Your task to perform on an android device: Open calendar and show me the first week of next month Image 0: 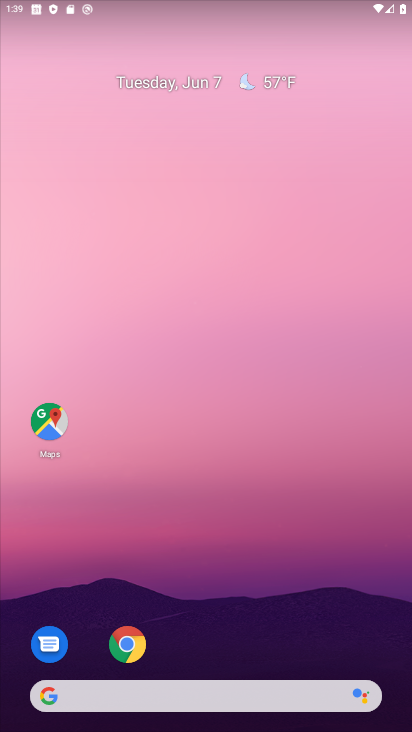
Step 0: drag from (183, 419) to (162, 200)
Your task to perform on an android device: Open calendar and show me the first week of next month Image 1: 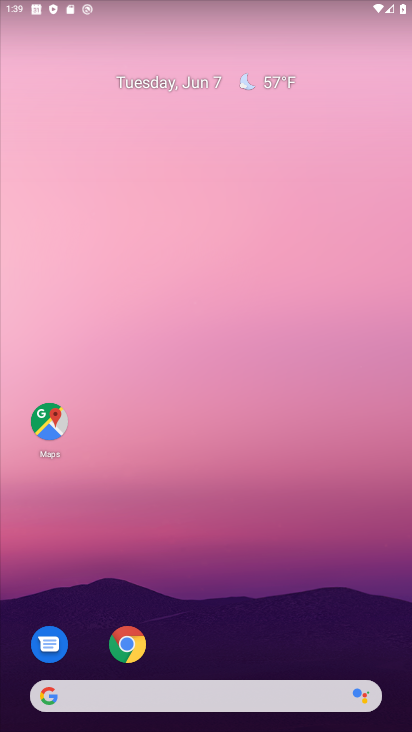
Step 1: drag from (182, 486) to (159, 268)
Your task to perform on an android device: Open calendar and show me the first week of next month Image 2: 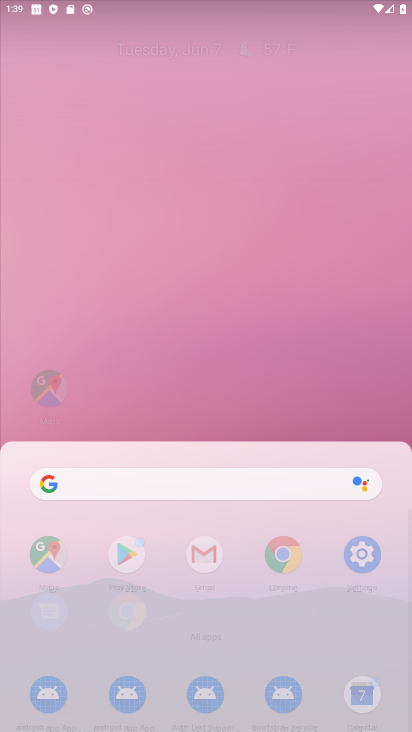
Step 2: drag from (147, 414) to (87, 52)
Your task to perform on an android device: Open calendar and show me the first week of next month Image 3: 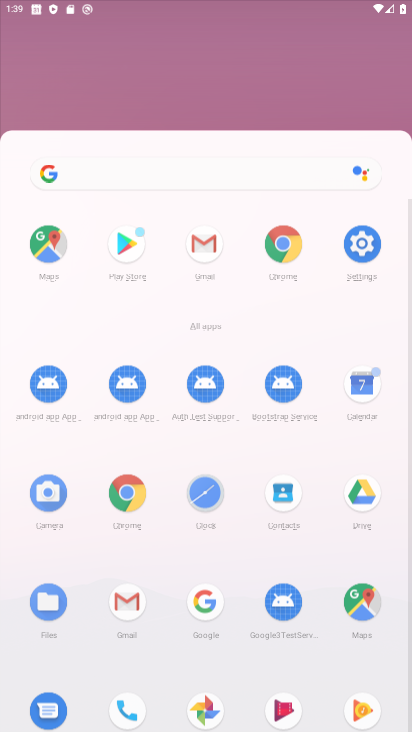
Step 3: drag from (225, 484) to (160, 59)
Your task to perform on an android device: Open calendar and show me the first week of next month Image 4: 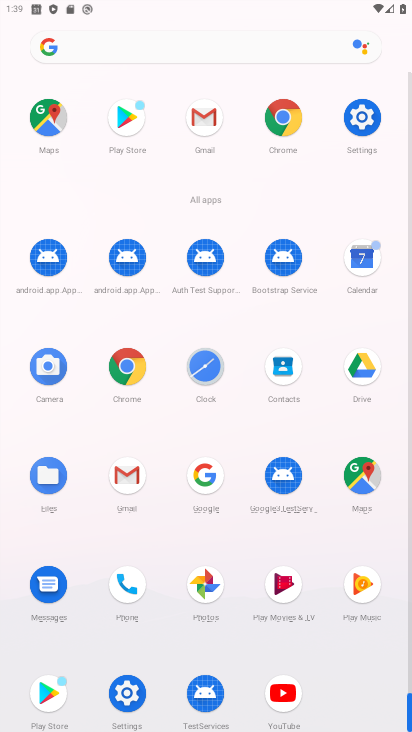
Step 4: click (357, 262)
Your task to perform on an android device: Open calendar and show me the first week of next month Image 5: 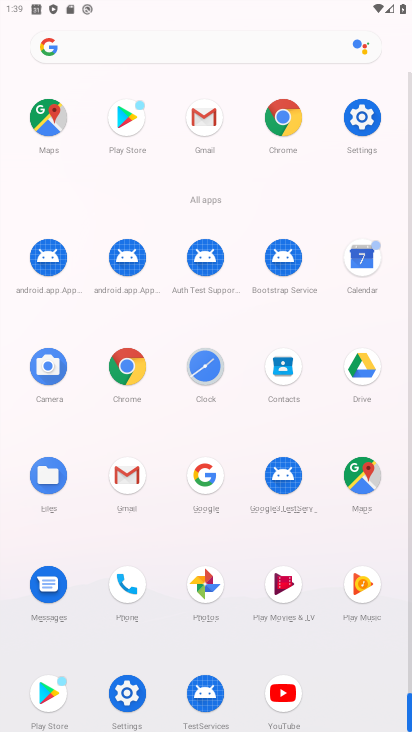
Step 5: click (361, 259)
Your task to perform on an android device: Open calendar and show me the first week of next month Image 6: 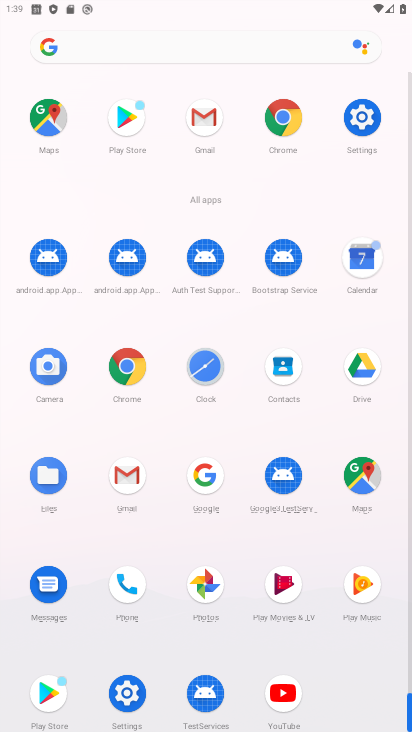
Step 6: click (361, 259)
Your task to perform on an android device: Open calendar and show me the first week of next month Image 7: 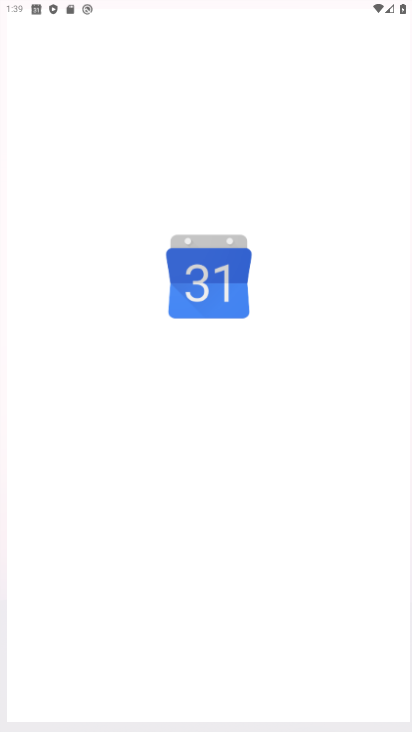
Step 7: click (366, 270)
Your task to perform on an android device: Open calendar and show me the first week of next month Image 8: 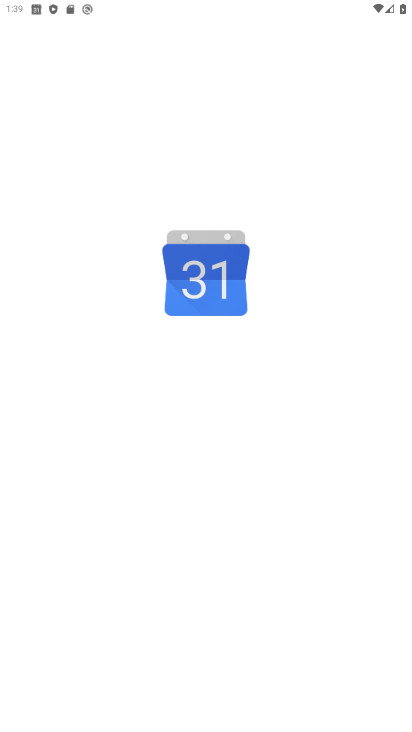
Step 8: click (367, 270)
Your task to perform on an android device: Open calendar and show me the first week of next month Image 9: 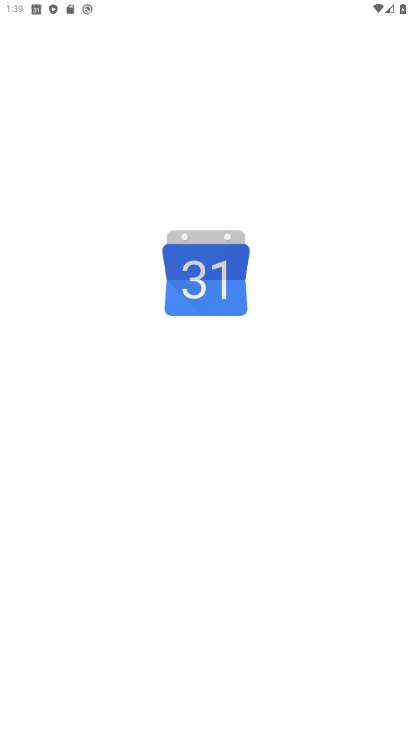
Step 9: click (367, 270)
Your task to perform on an android device: Open calendar and show me the first week of next month Image 10: 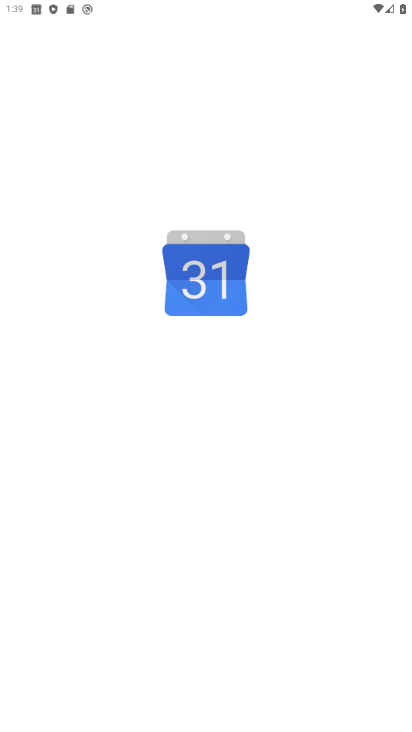
Step 10: click (366, 269)
Your task to perform on an android device: Open calendar and show me the first week of next month Image 11: 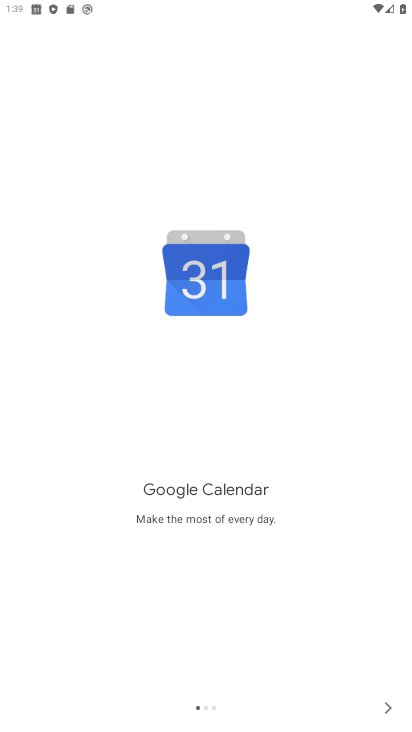
Step 11: click (391, 702)
Your task to perform on an android device: Open calendar and show me the first week of next month Image 12: 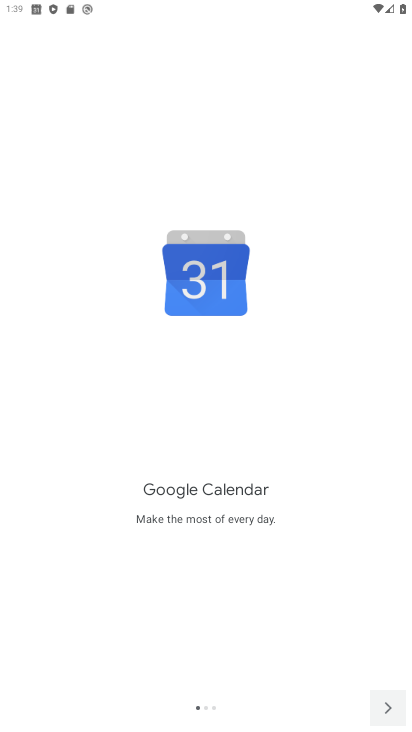
Step 12: click (392, 702)
Your task to perform on an android device: Open calendar and show me the first week of next month Image 13: 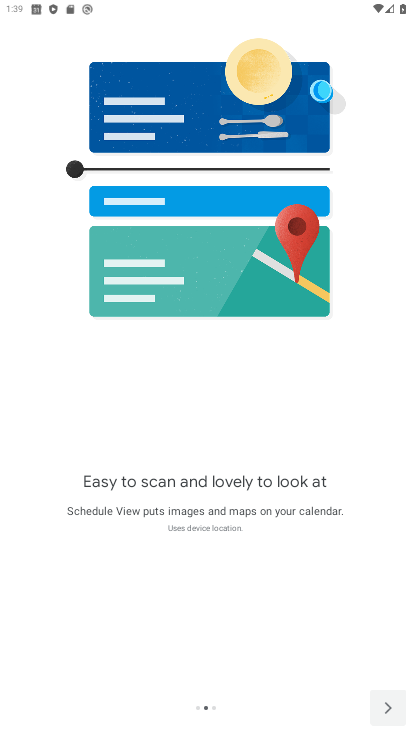
Step 13: click (398, 701)
Your task to perform on an android device: Open calendar and show me the first week of next month Image 14: 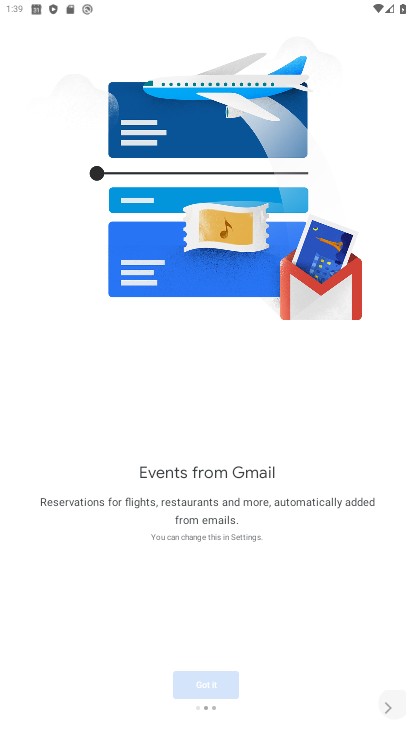
Step 14: click (398, 701)
Your task to perform on an android device: Open calendar and show me the first week of next month Image 15: 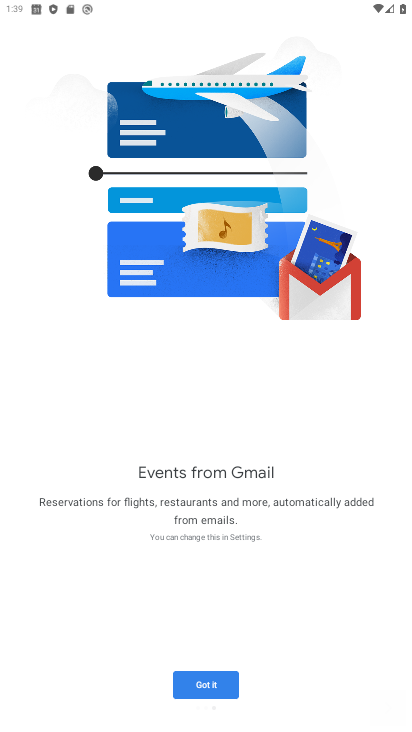
Step 15: click (398, 697)
Your task to perform on an android device: Open calendar and show me the first week of next month Image 16: 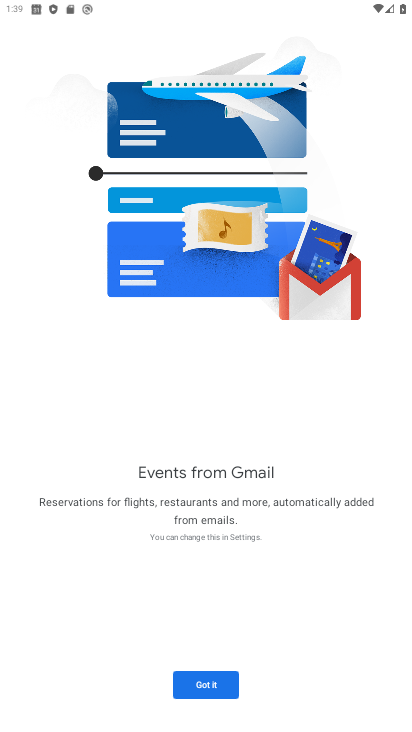
Step 16: click (398, 697)
Your task to perform on an android device: Open calendar and show me the first week of next month Image 17: 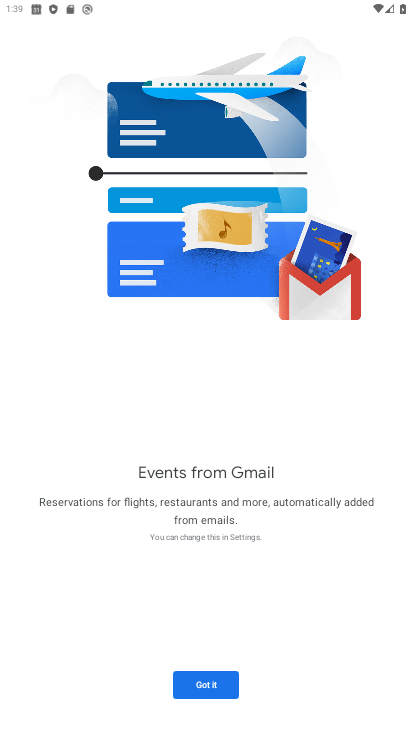
Step 17: click (227, 679)
Your task to perform on an android device: Open calendar and show me the first week of next month Image 18: 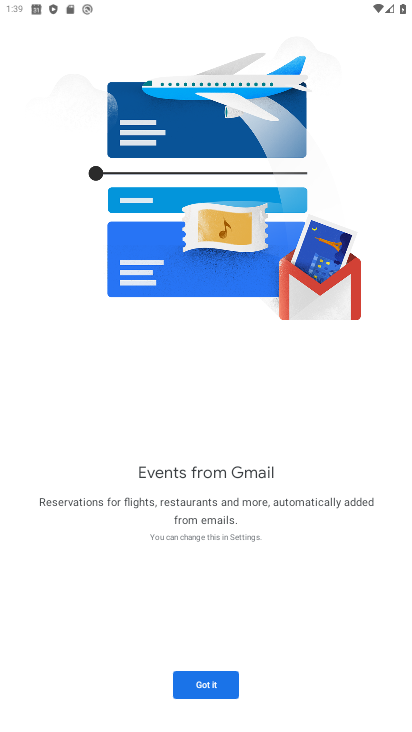
Step 18: click (224, 681)
Your task to perform on an android device: Open calendar and show me the first week of next month Image 19: 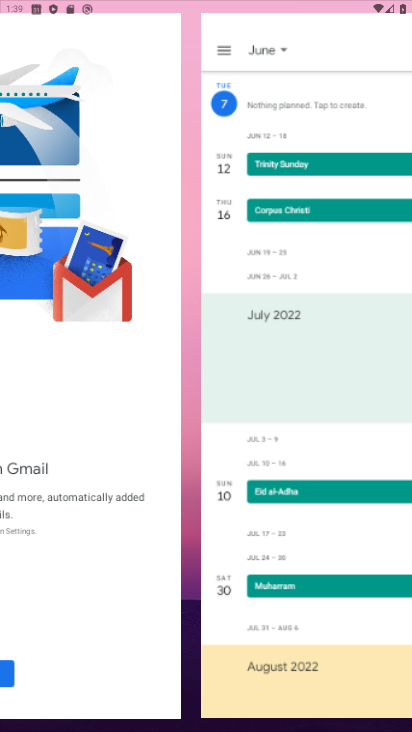
Step 19: click (205, 683)
Your task to perform on an android device: Open calendar and show me the first week of next month Image 20: 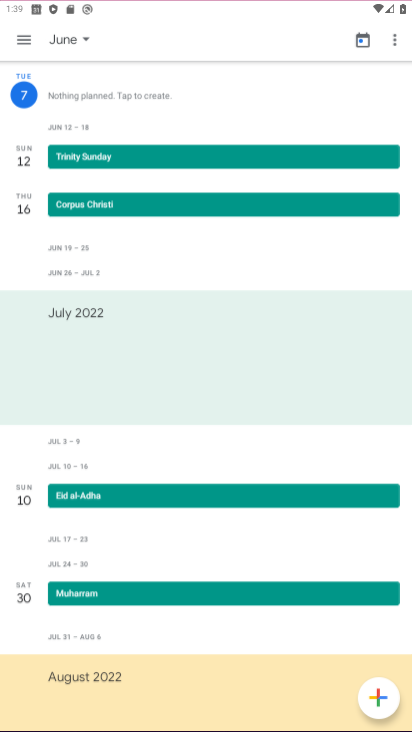
Step 20: click (203, 683)
Your task to perform on an android device: Open calendar and show me the first week of next month Image 21: 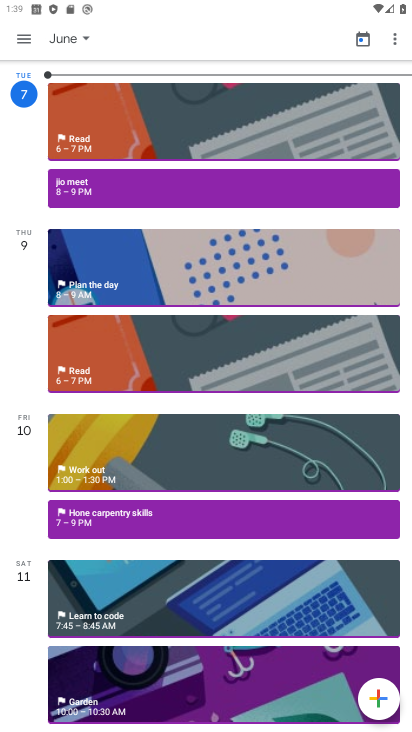
Step 21: click (86, 35)
Your task to perform on an android device: Open calendar and show me the first week of next month Image 22: 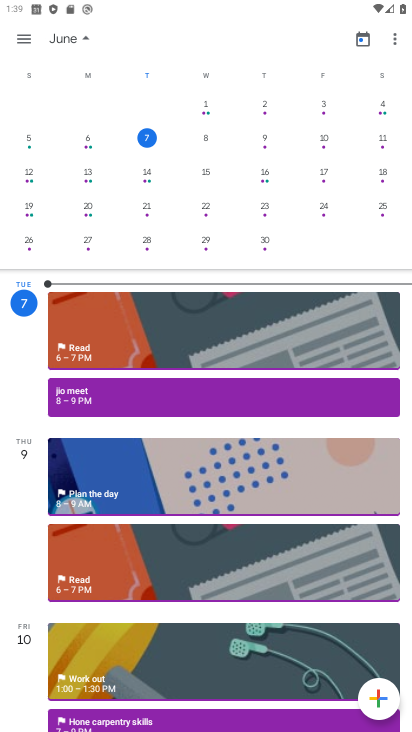
Step 22: drag from (340, 151) to (0, 210)
Your task to perform on an android device: Open calendar and show me the first week of next month Image 23: 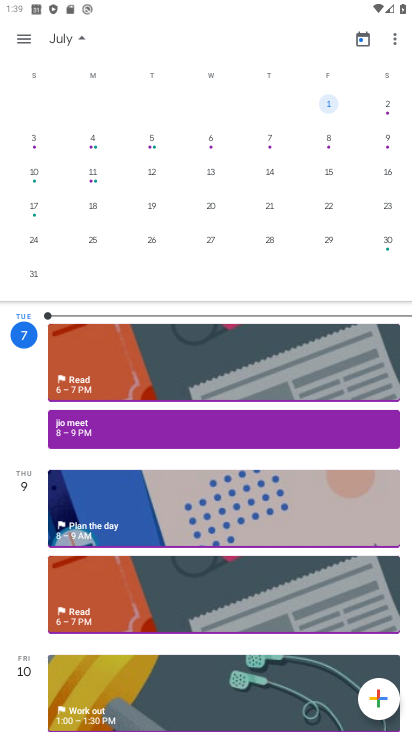
Step 23: drag from (237, 210) to (28, 242)
Your task to perform on an android device: Open calendar and show me the first week of next month Image 24: 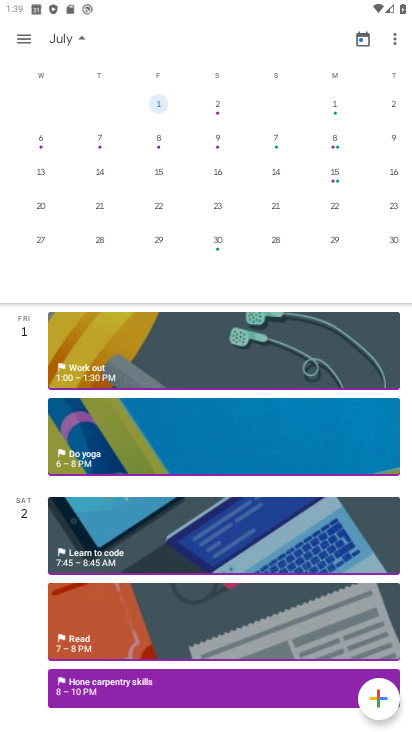
Step 24: drag from (169, 237) to (31, 203)
Your task to perform on an android device: Open calendar and show me the first week of next month Image 25: 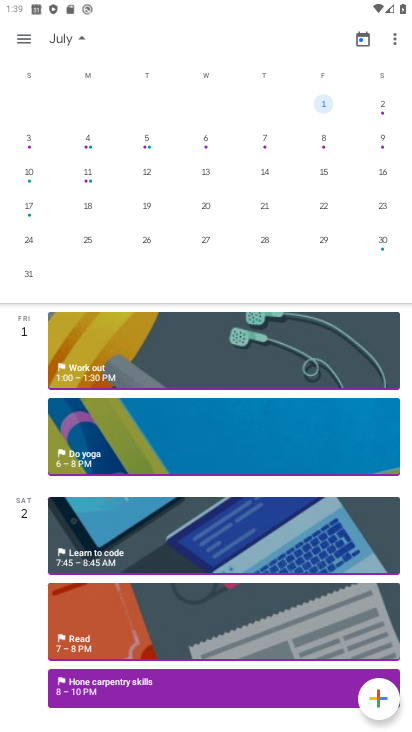
Step 25: click (321, 140)
Your task to perform on an android device: Open calendar and show me the first week of next month Image 26: 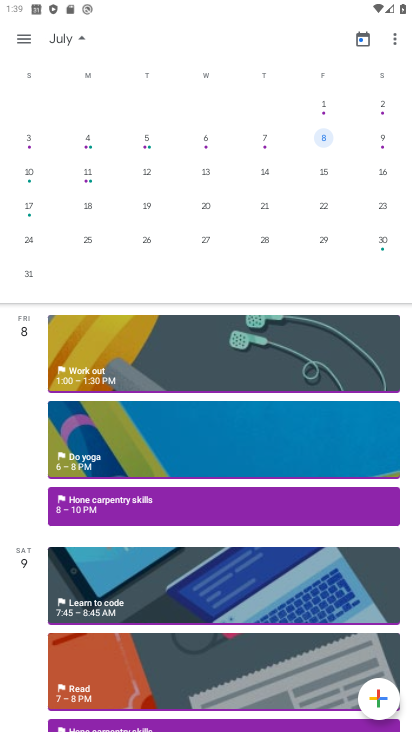
Step 26: task complete